Your task to perform on an android device: open chrome and create a bookmark for the current page Image 0: 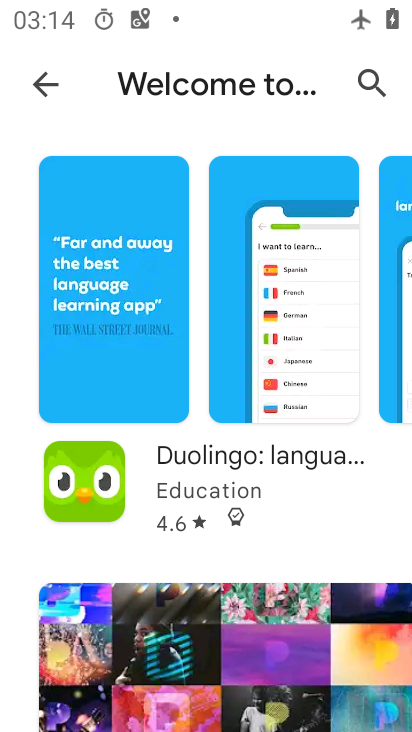
Step 0: press home button
Your task to perform on an android device: open chrome and create a bookmark for the current page Image 1: 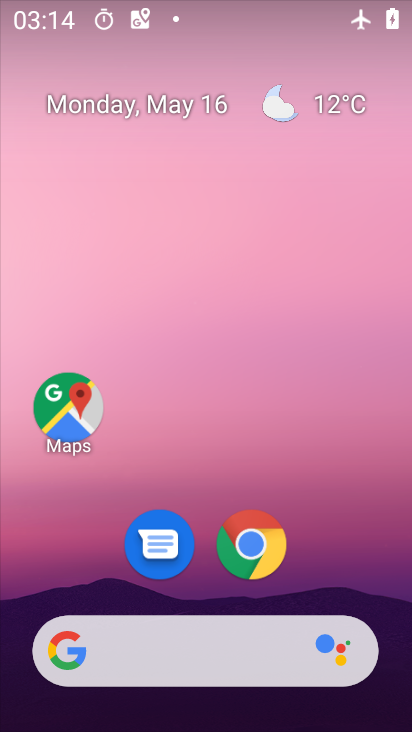
Step 1: click (256, 538)
Your task to perform on an android device: open chrome and create a bookmark for the current page Image 2: 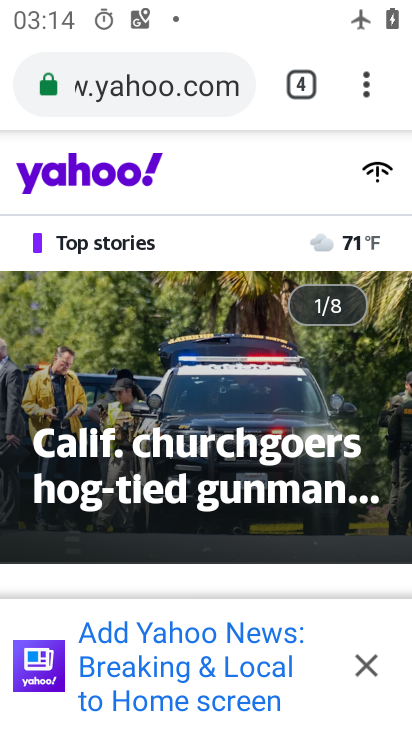
Step 2: click (367, 95)
Your task to perform on an android device: open chrome and create a bookmark for the current page Image 3: 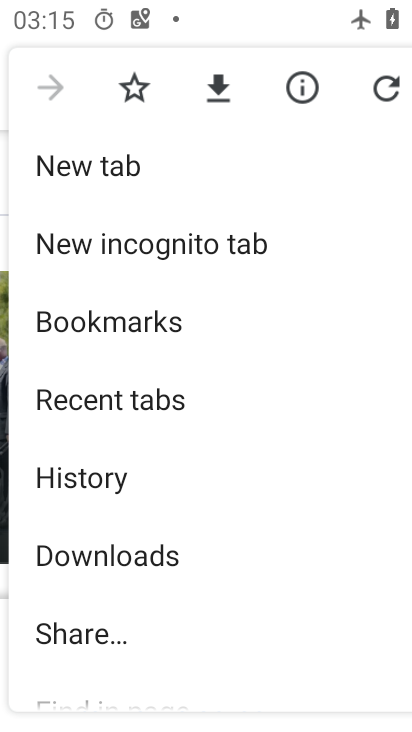
Step 3: click (139, 87)
Your task to perform on an android device: open chrome and create a bookmark for the current page Image 4: 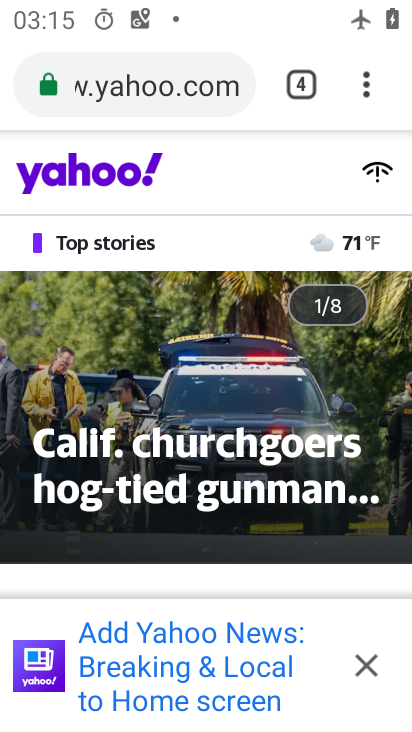
Step 4: task complete